Your task to perform on an android device: Go to location settings Image 0: 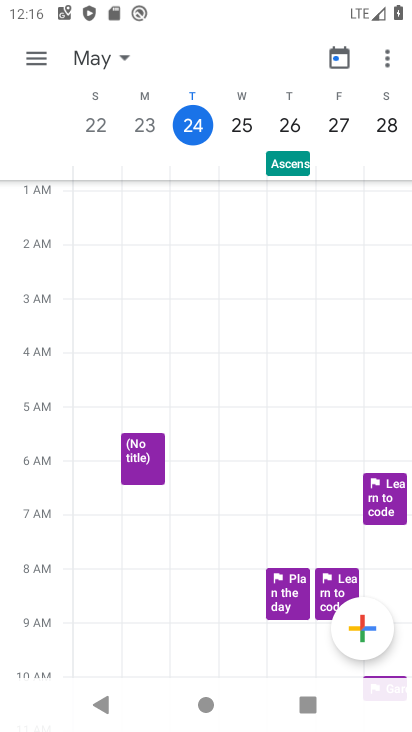
Step 0: drag from (272, 552) to (377, 232)
Your task to perform on an android device: Go to location settings Image 1: 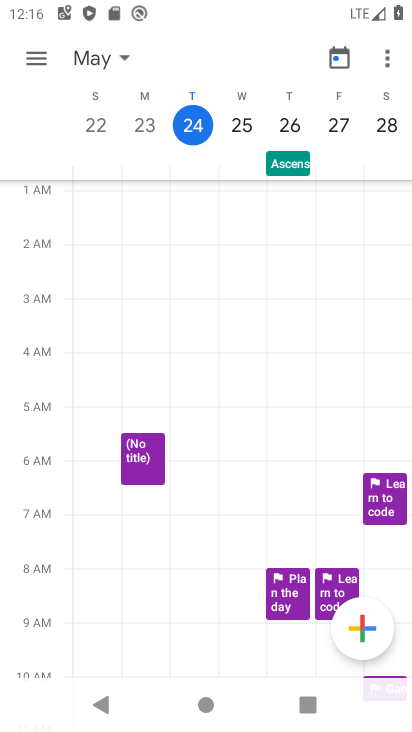
Step 1: press home button
Your task to perform on an android device: Go to location settings Image 2: 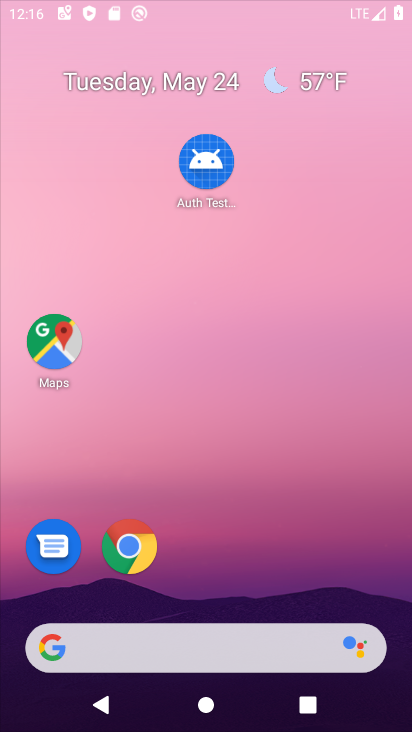
Step 2: drag from (241, 498) to (317, 95)
Your task to perform on an android device: Go to location settings Image 3: 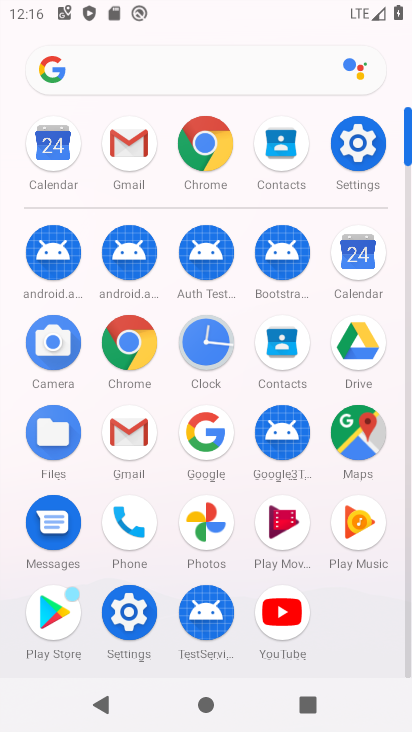
Step 3: click (362, 134)
Your task to perform on an android device: Go to location settings Image 4: 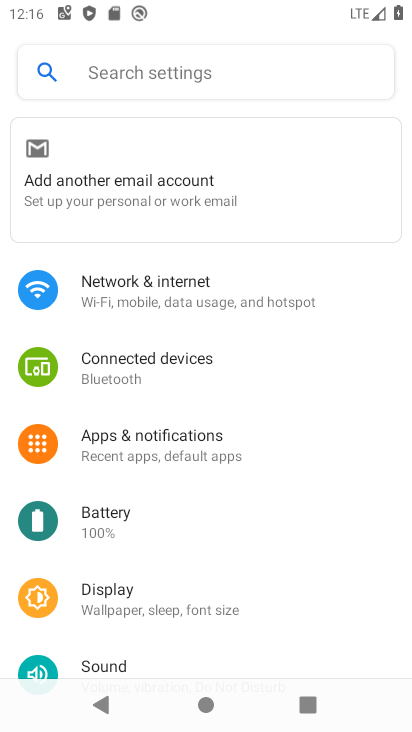
Step 4: drag from (240, 496) to (311, 177)
Your task to perform on an android device: Go to location settings Image 5: 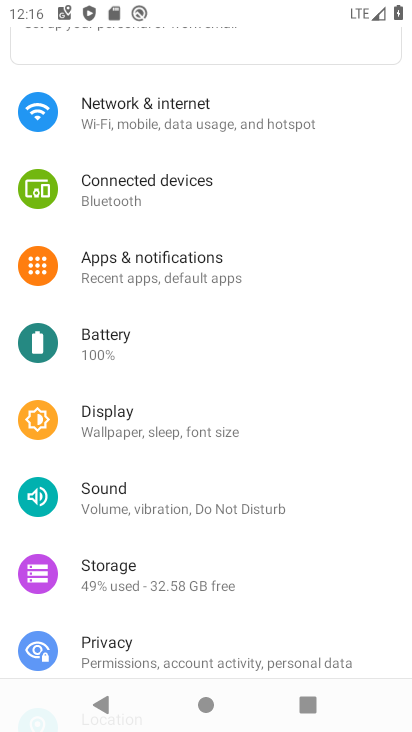
Step 5: drag from (193, 580) to (244, 268)
Your task to perform on an android device: Go to location settings Image 6: 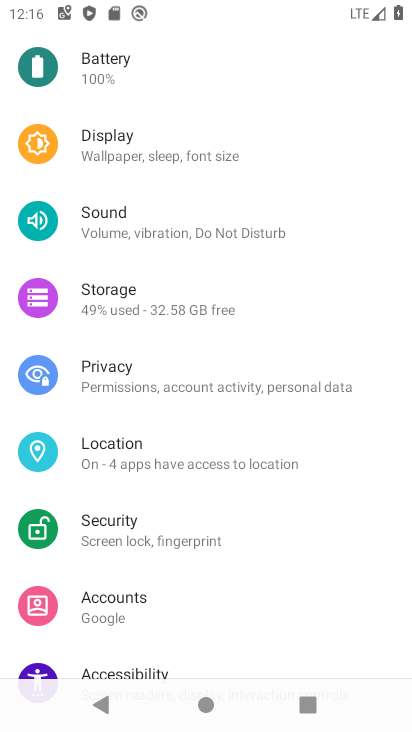
Step 6: drag from (173, 449) to (298, 78)
Your task to perform on an android device: Go to location settings Image 7: 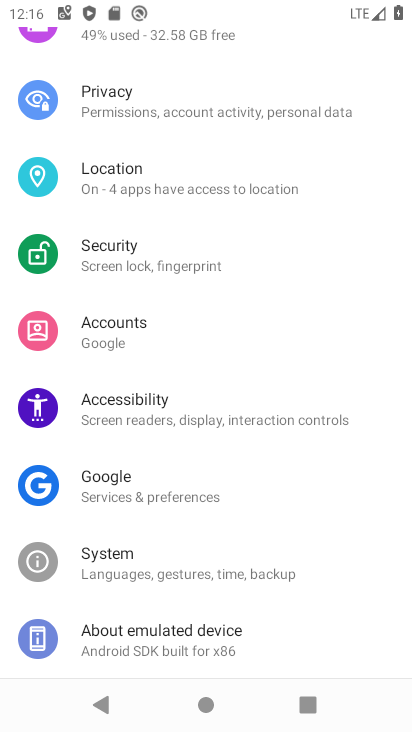
Step 7: click (151, 185)
Your task to perform on an android device: Go to location settings Image 8: 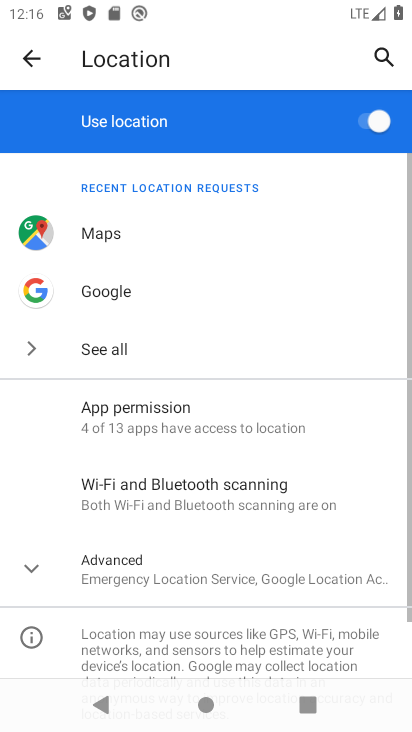
Step 8: task complete